Your task to perform on an android device: turn notification dots off Image 0: 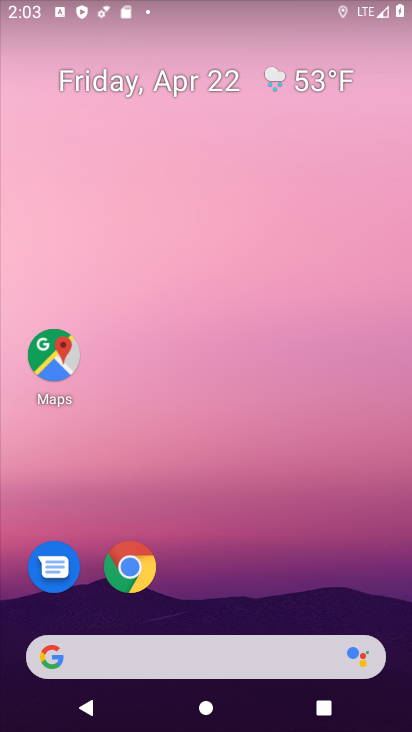
Step 0: drag from (392, 635) to (308, 122)
Your task to perform on an android device: turn notification dots off Image 1: 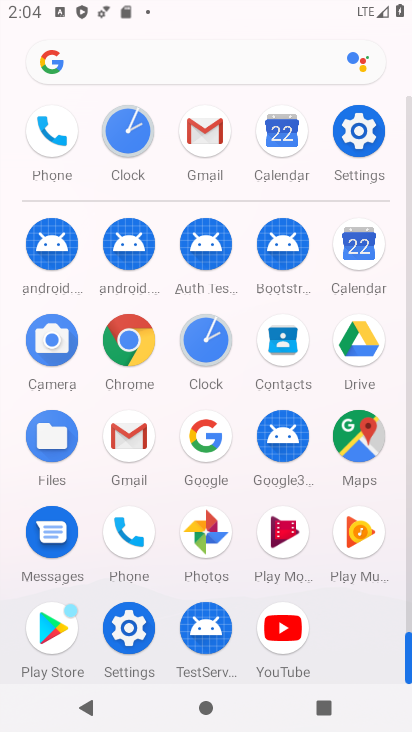
Step 1: click (126, 627)
Your task to perform on an android device: turn notification dots off Image 2: 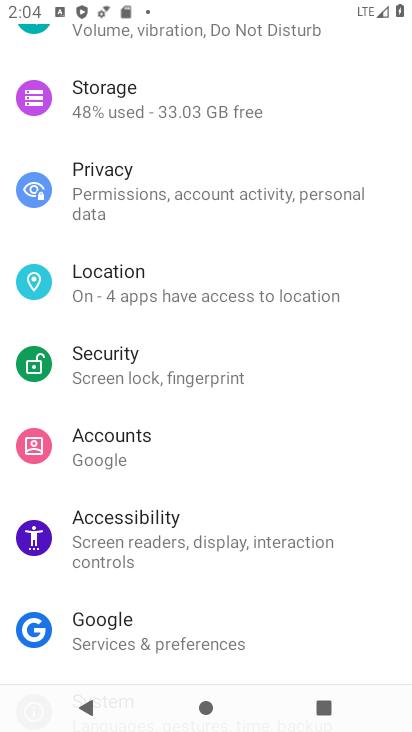
Step 2: drag from (337, 497) to (330, 550)
Your task to perform on an android device: turn notification dots off Image 3: 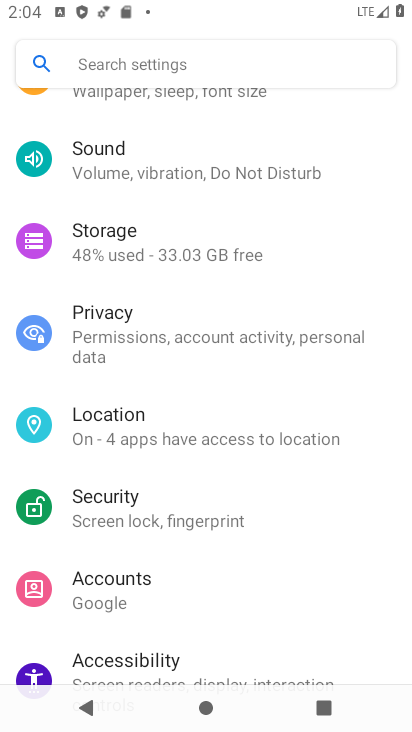
Step 3: drag from (295, 315) to (251, 579)
Your task to perform on an android device: turn notification dots off Image 4: 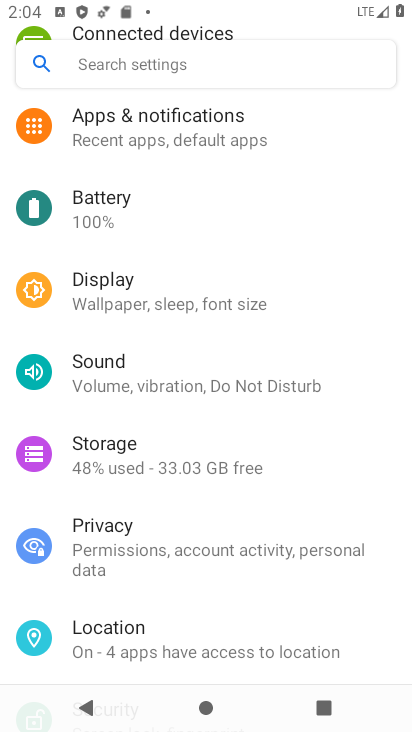
Step 4: click (158, 128)
Your task to perform on an android device: turn notification dots off Image 5: 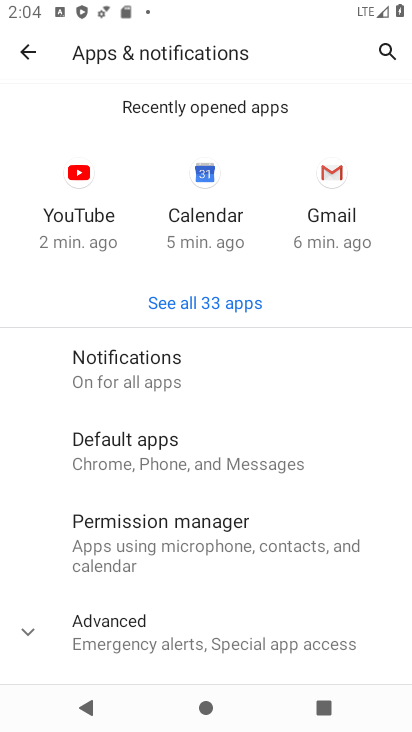
Step 5: drag from (255, 509) to (251, 267)
Your task to perform on an android device: turn notification dots off Image 6: 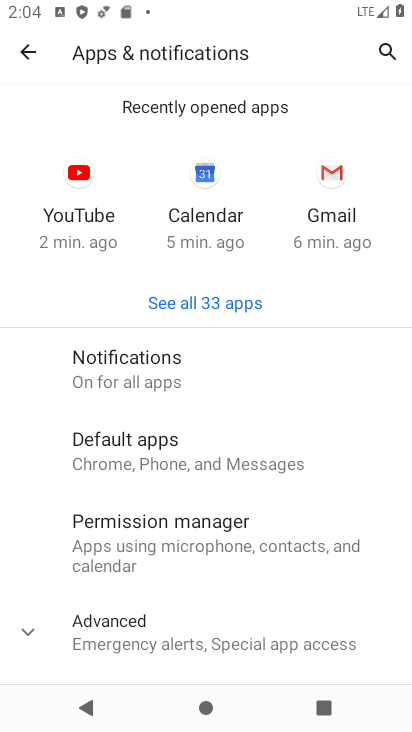
Step 6: click (135, 358)
Your task to perform on an android device: turn notification dots off Image 7: 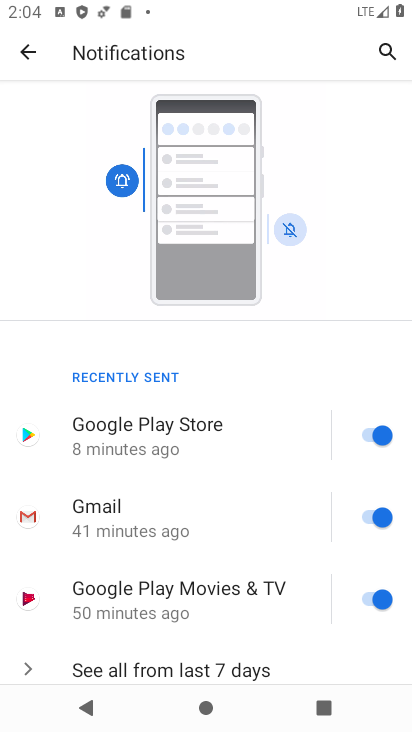
Step 7: drag from (213, 557) to (241, 214)
Your task to perform on an android device: turn notification dots off Image 8: 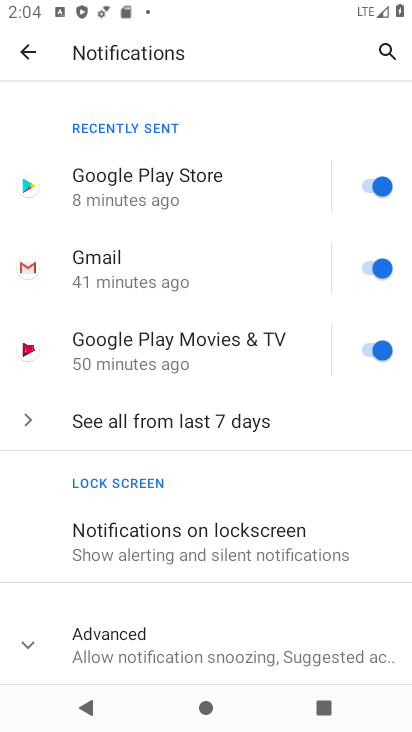
Step 8: drag from (255, 513) to (226, 215)
Your task to perform on an android device: turn notification dots off Image 9: 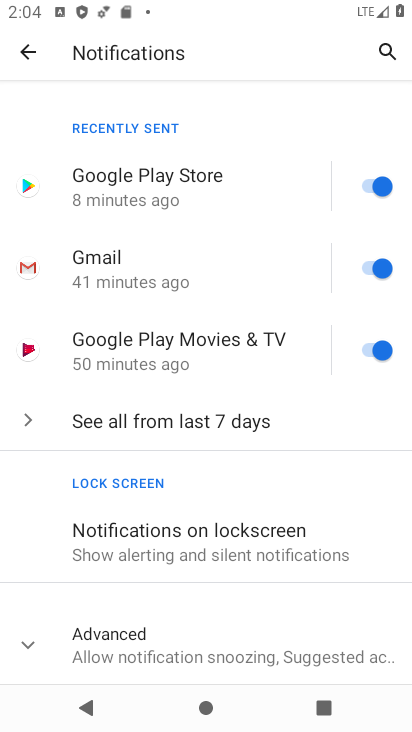
Step 9: click (65, 643)
Your task to perform on an android device: turn notification dots off Image 10: 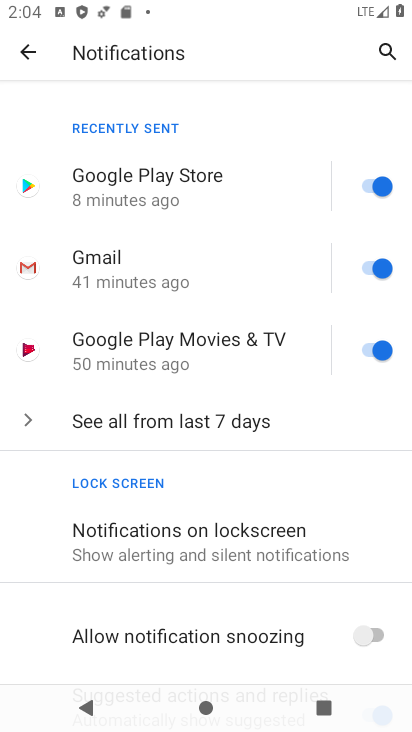
Step 10: drag from (277, 584) to (260, 252)
Your task to perform on an android device: turn notification dots off Image 11: 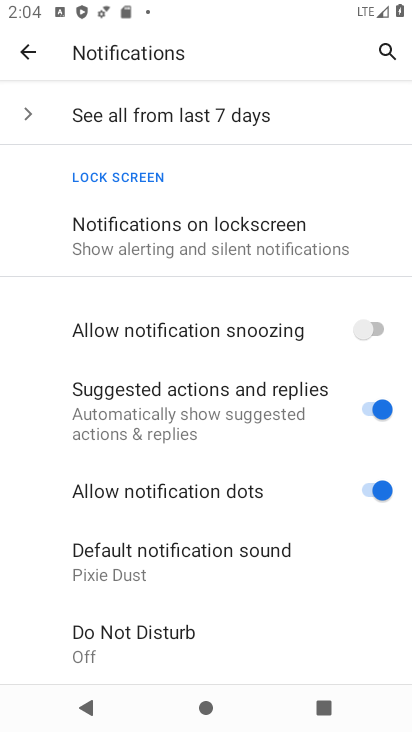
Step 11: click (368, 492)
Your task to perform on an android device: turn notification dots off Image 12: 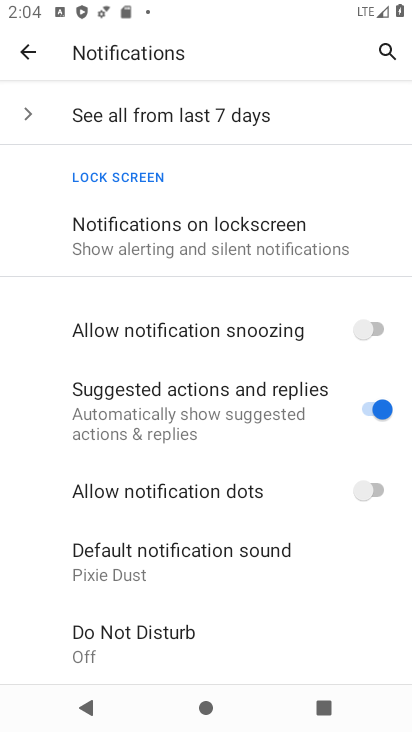
Step 12: task complete